Your task to perform on an android device: Search for the best way to make a resume. Image 0: 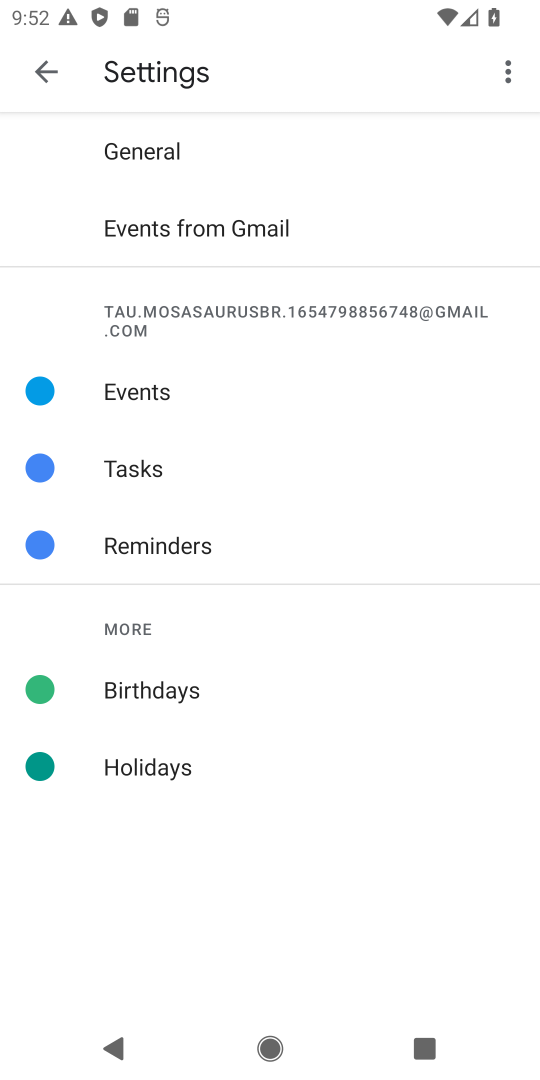
Step 0: press home button
Your task to perform on an android device: Search for the best way to make a resume. Image 1: 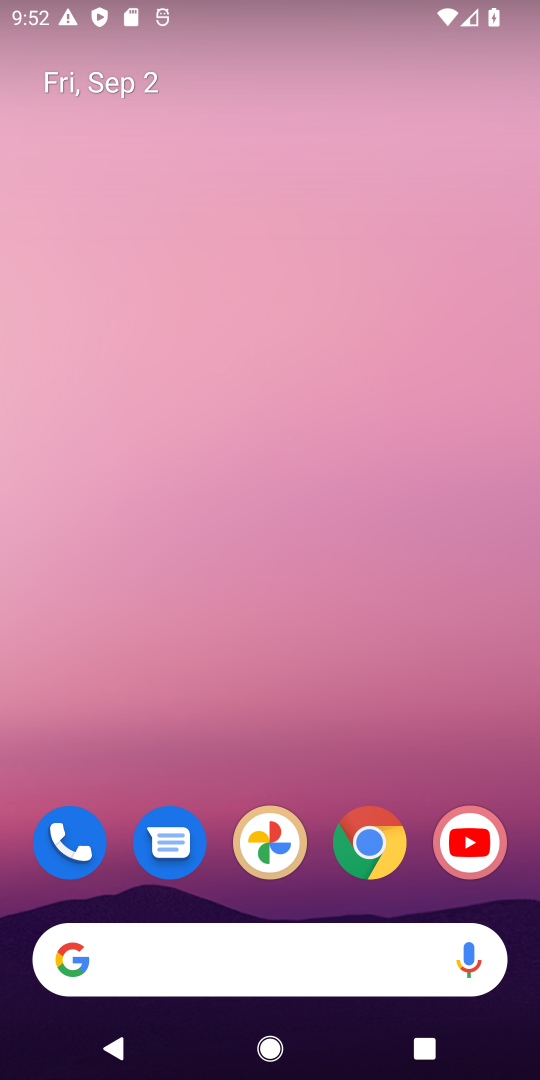
Step 1: drag from (278, 787) to (403, 124)
Your task to perform on an android device: Search for the best way to make a resume. Image 2: 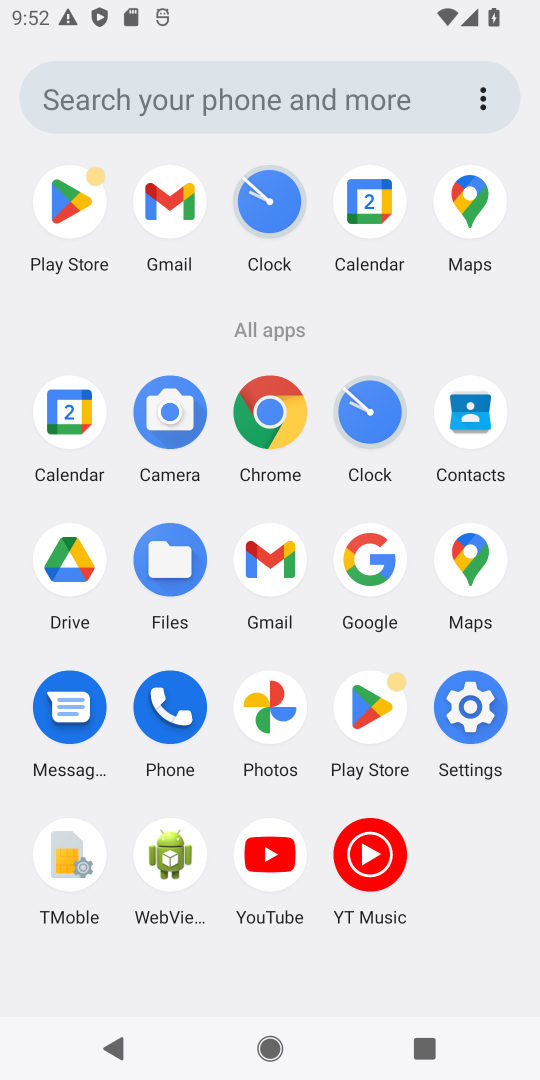
Step 2: click (269, 426)
Your task to perform on an android device: Search for the best way to make a resume. Image 3: 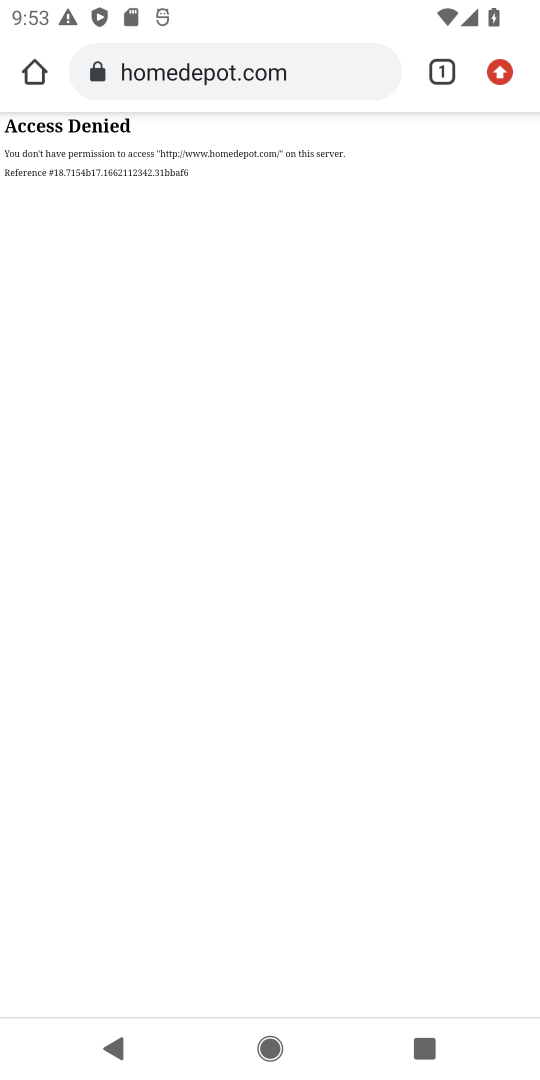
Step 3: click (317, 91)
Your task to perform on an android device: Search for the best way to make a resume. Image 4: 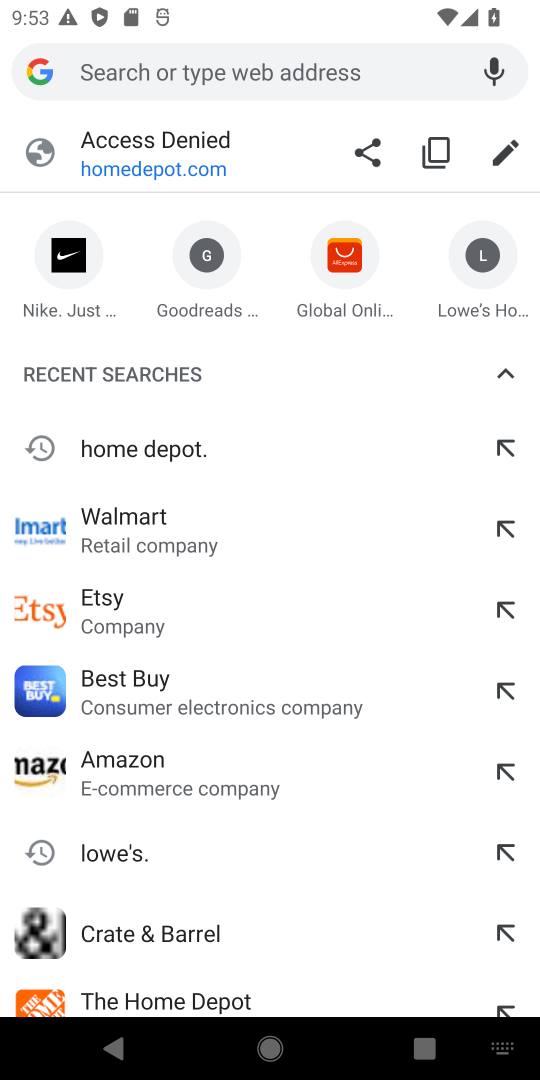
Step 4: drag from (432, 1055) to (528, 1078)
Your task to perform on an android device: Search for the best way to make a resume. Image 5: 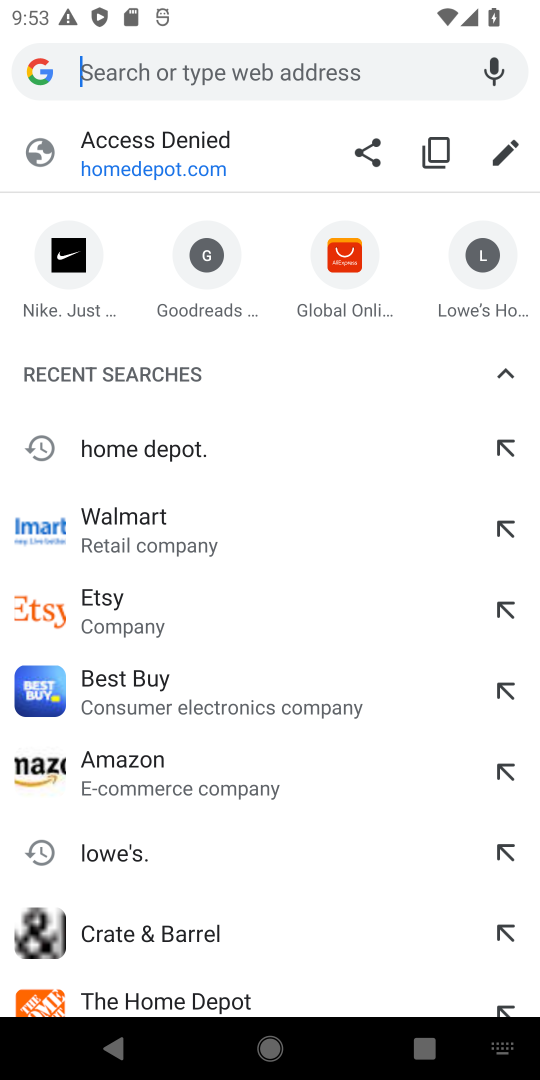
Step 5: press enter
Your task to perform on an android device: Search for the best way to make a resume. Image 6: 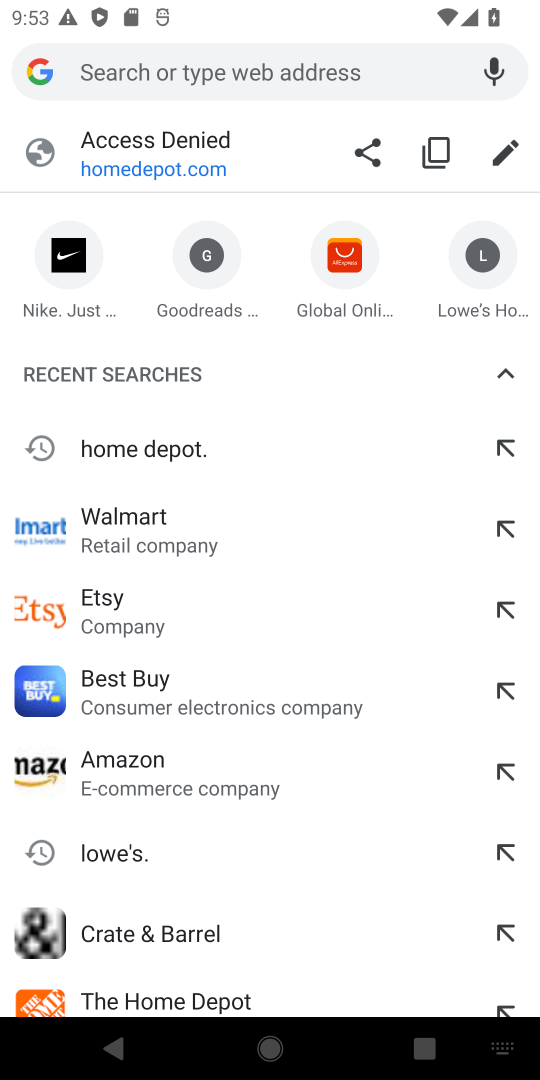
Step 6: type " best way to make a resume."
Your task to perform on an android device: Search for the best way to make a resume. Image 7: 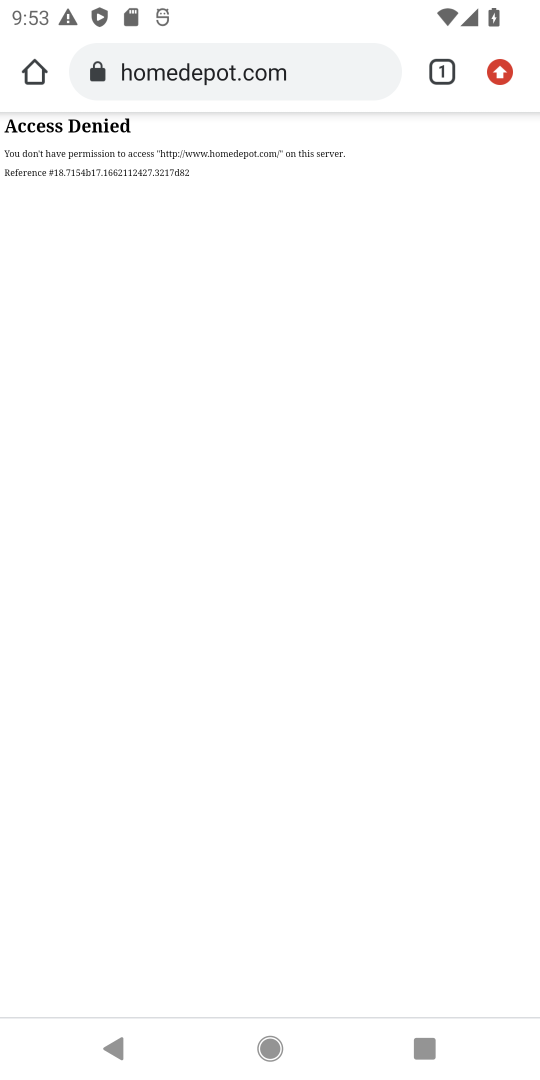
Step 7: drag from (528, 1078) to (475, 524)
Your task to perform on an android device: Search for the best way to make a resume. Image 8: 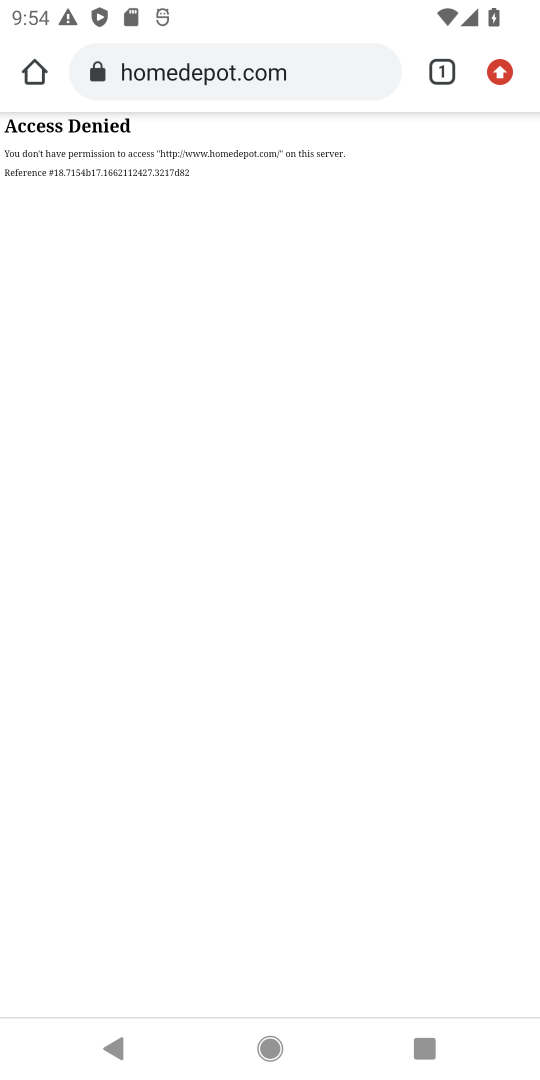
Step 8: click (229, 66)
Your task to perform on an android device: Search for the best way to make a resume. Image 9: 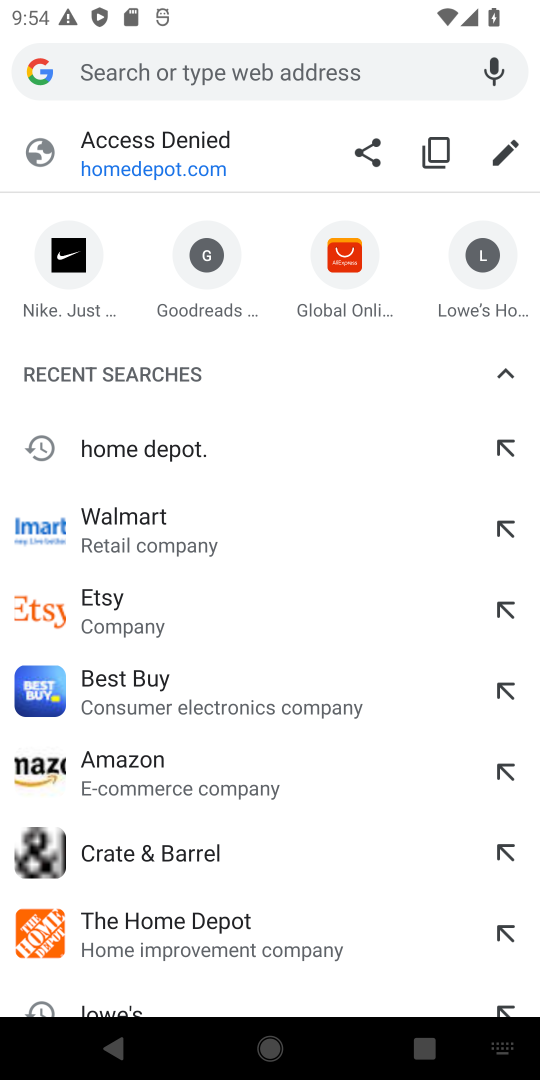
Step 9: type " best way to make a resume."
Your task to perform on an android device: Search for the best way to make a resume. Image 10: 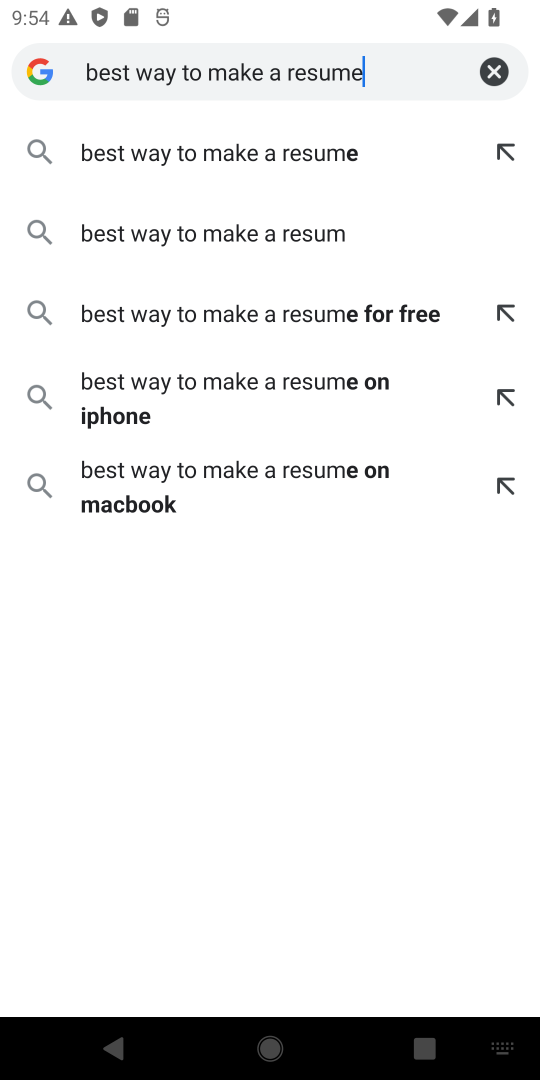
Step 10: press enter
Your task to perform on an android device: Search for the best way to make a resume. Image 11: 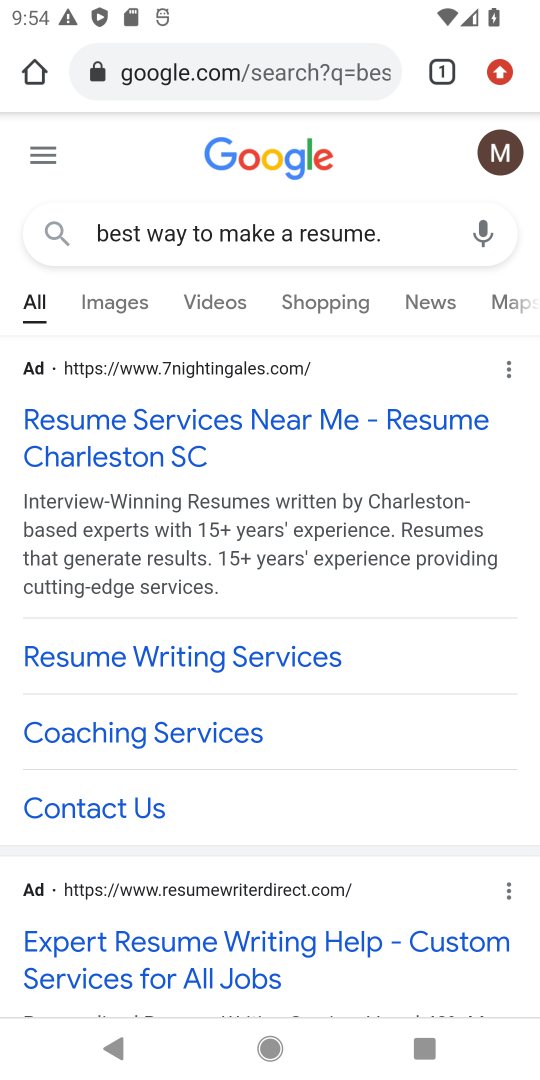
Step 11: drag from (229, 826) to (278, 666)
Your task to perform on an android device: Search for the best way to make a resume. Image 12: 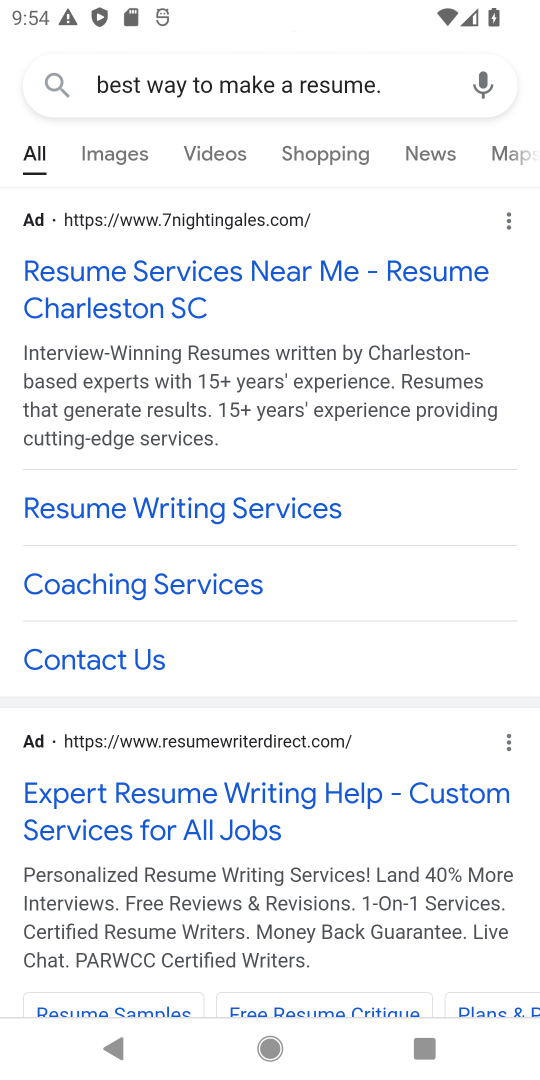
Step 12: drag from (193, 812) to (266, 596)
Your task to perform on an android device: Search for the best way to make a resume. Image 13: 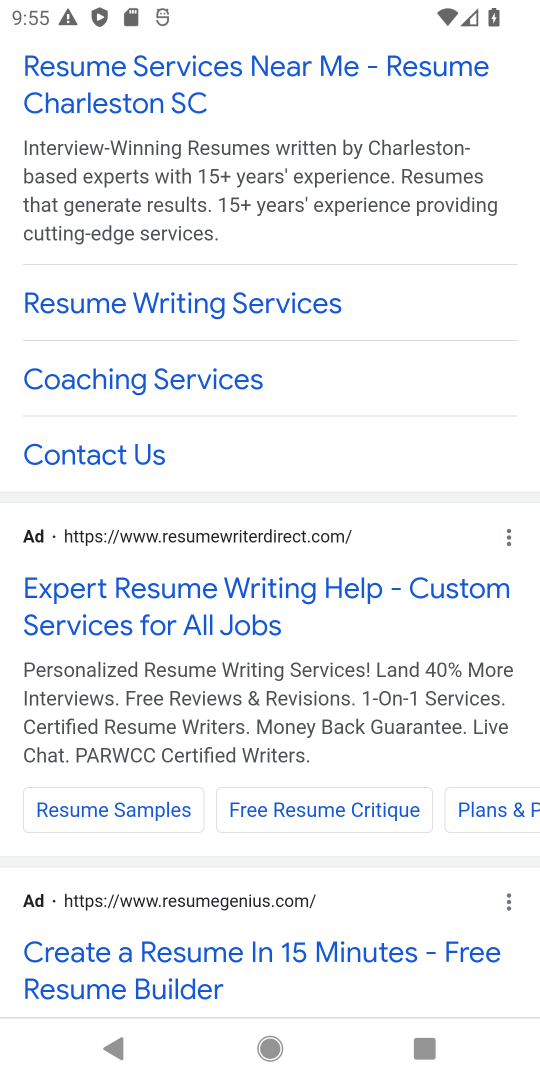
Step 13: click (137, 637)
Your task to perform on an android device: Search for the best way to make a resume. Image 14: 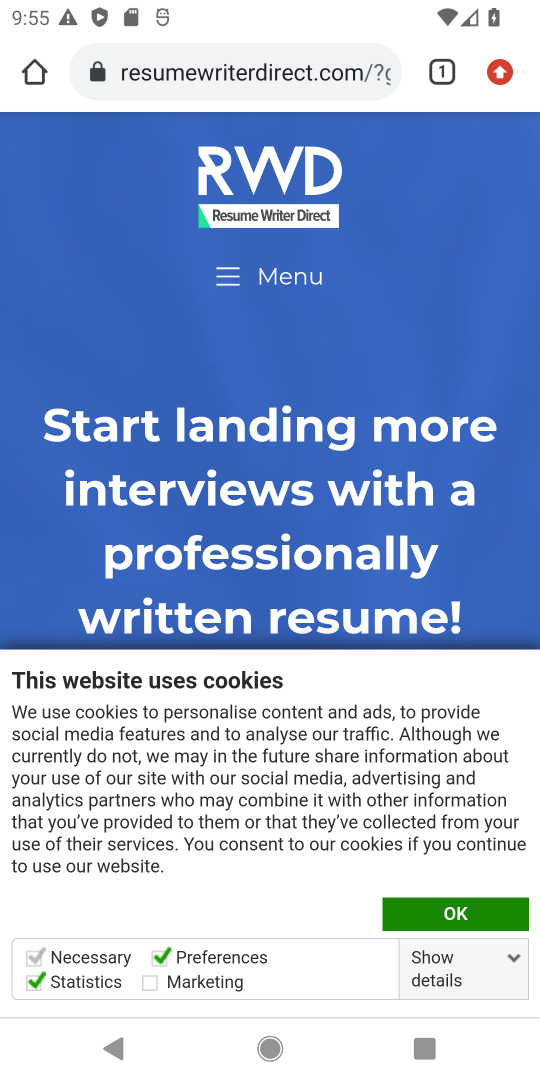
Step 14: task complete